Your task to perform on an android device: Go to Reddit.com Image 0: 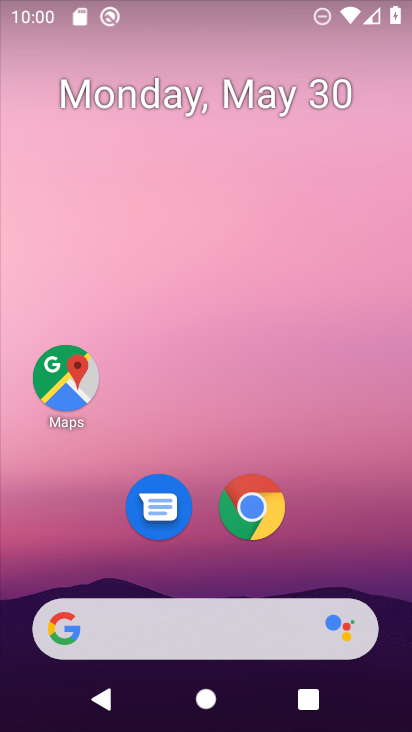
Step 0: click (251, 629)
Your task to perform on an android device: Go to Reddit.com Image 1: 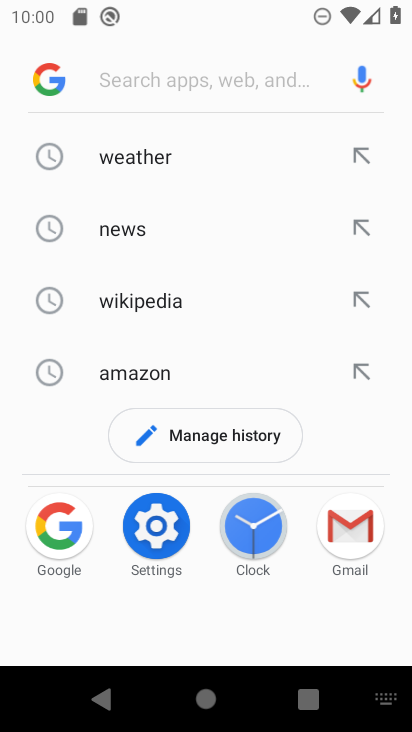
Step 1: type "reddit.com"
Your task to perform on an android device: Go to Reddit.com Image 2: 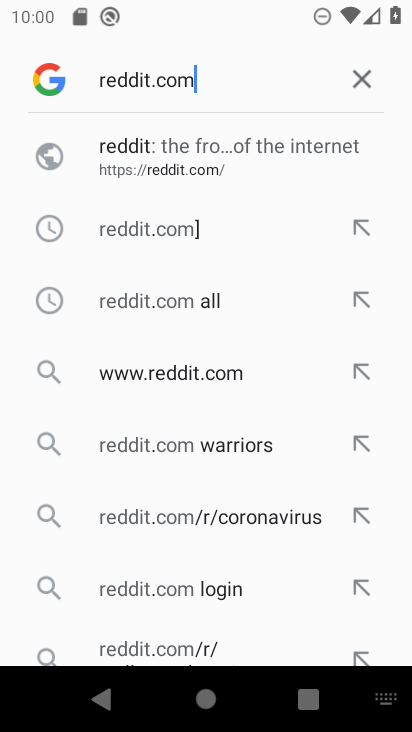
Step 2: click (172, 152)
Your task to perform on an android device: Go to Reddit.com Image 3: 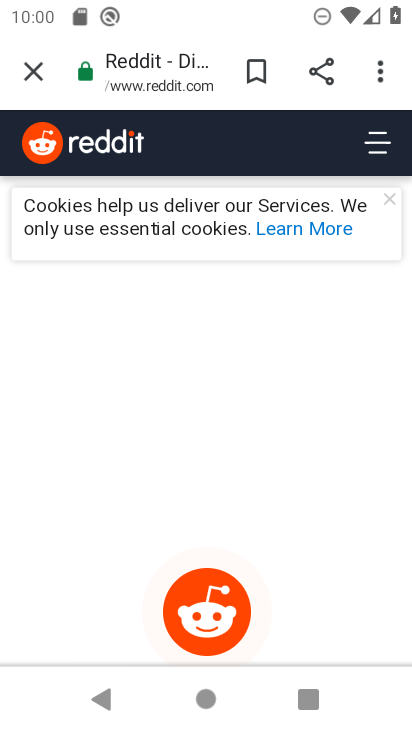
Step 3: task complete